Your task to perform on an android device: When is my next appointment? Image 0: 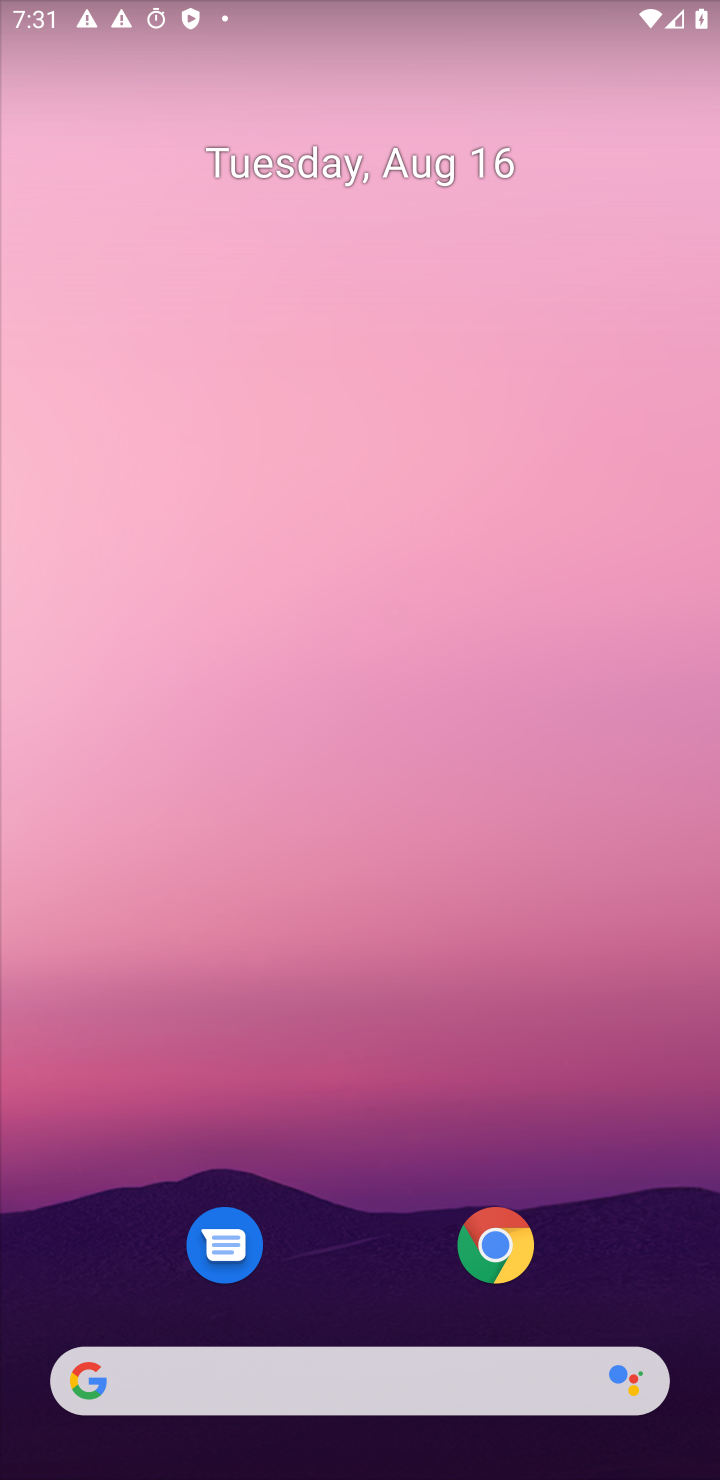
Step 0: press home button
Your task to perform on an android device: When is my next appointment? Image 1: 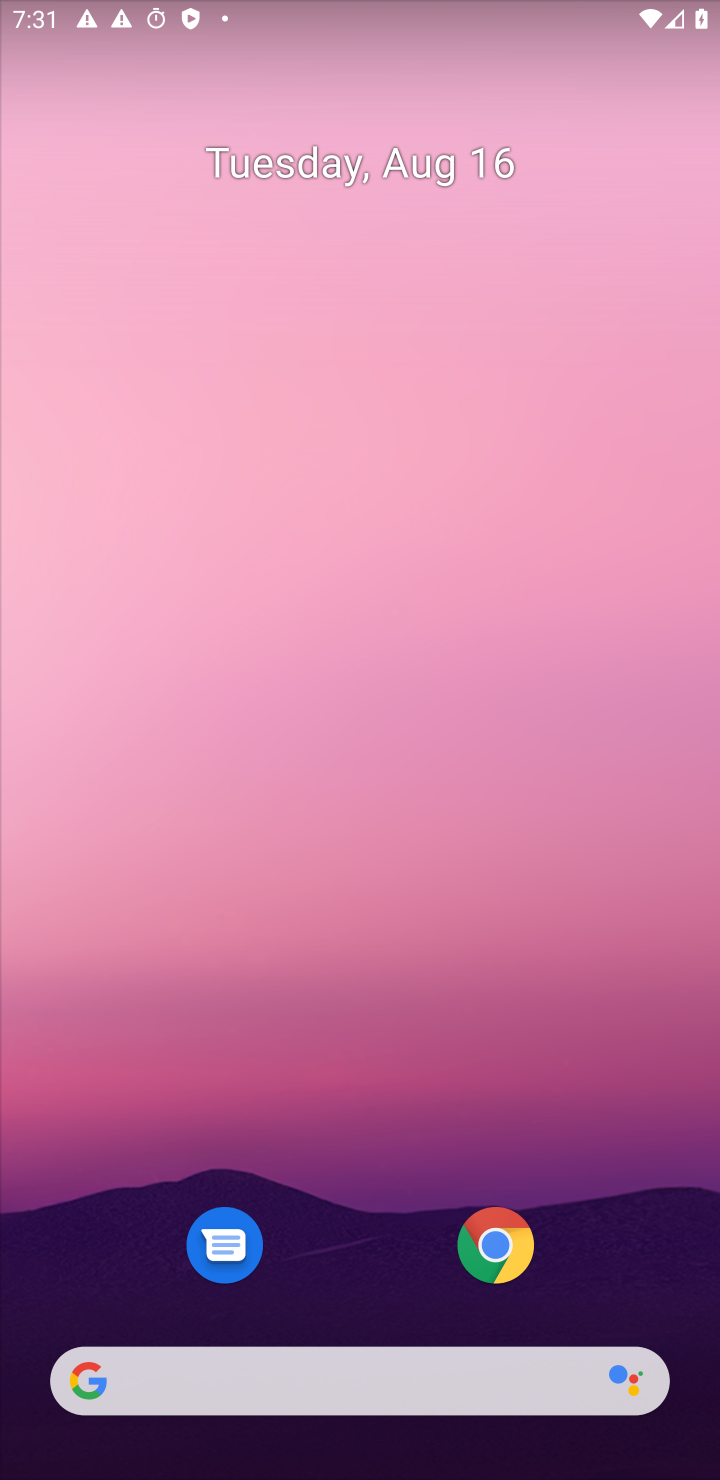
Step 1: drag from (345, 823) to (309, 198)
Your task to perform on an android device: When is my next appointment? Image 2: 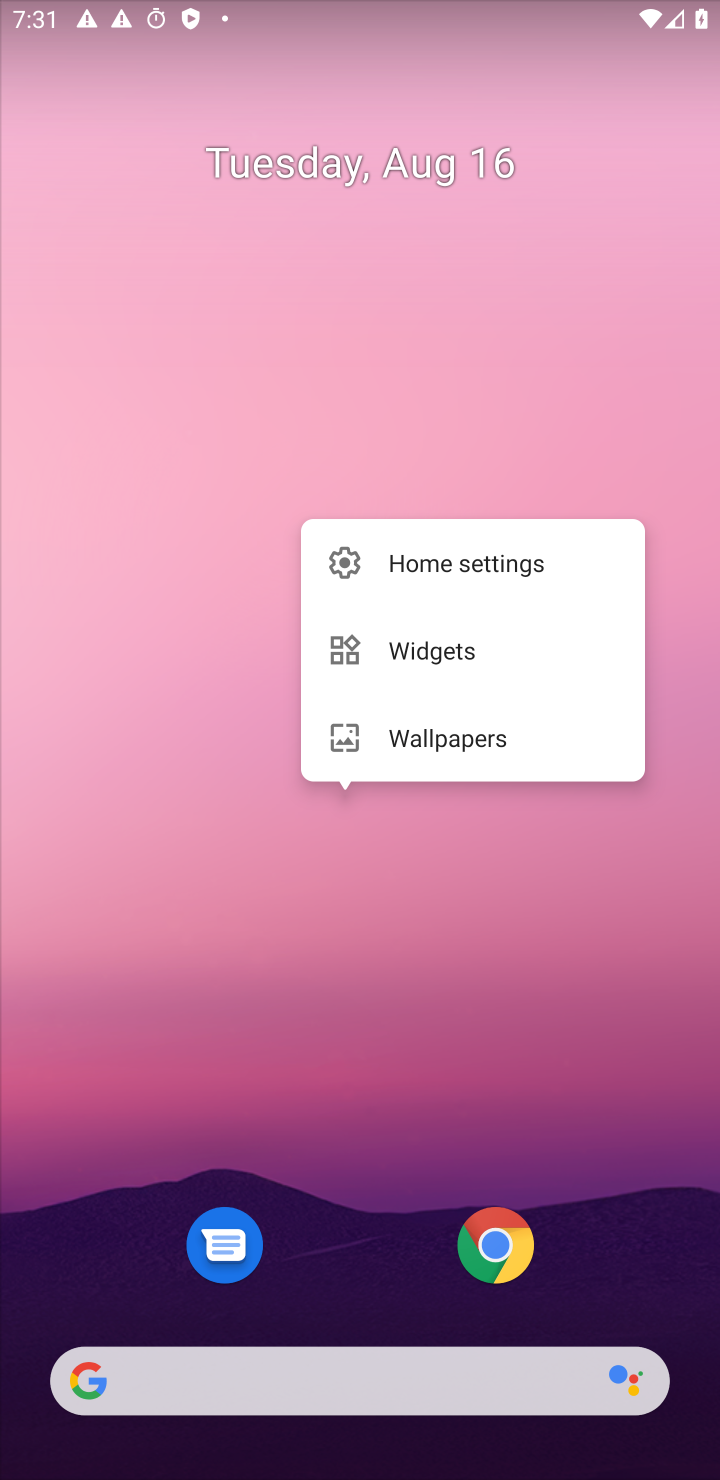
Step 2: drag from (368, 1248) to (241, 244)
Your task to perform on an android device: When is my next appointment? Image 3: 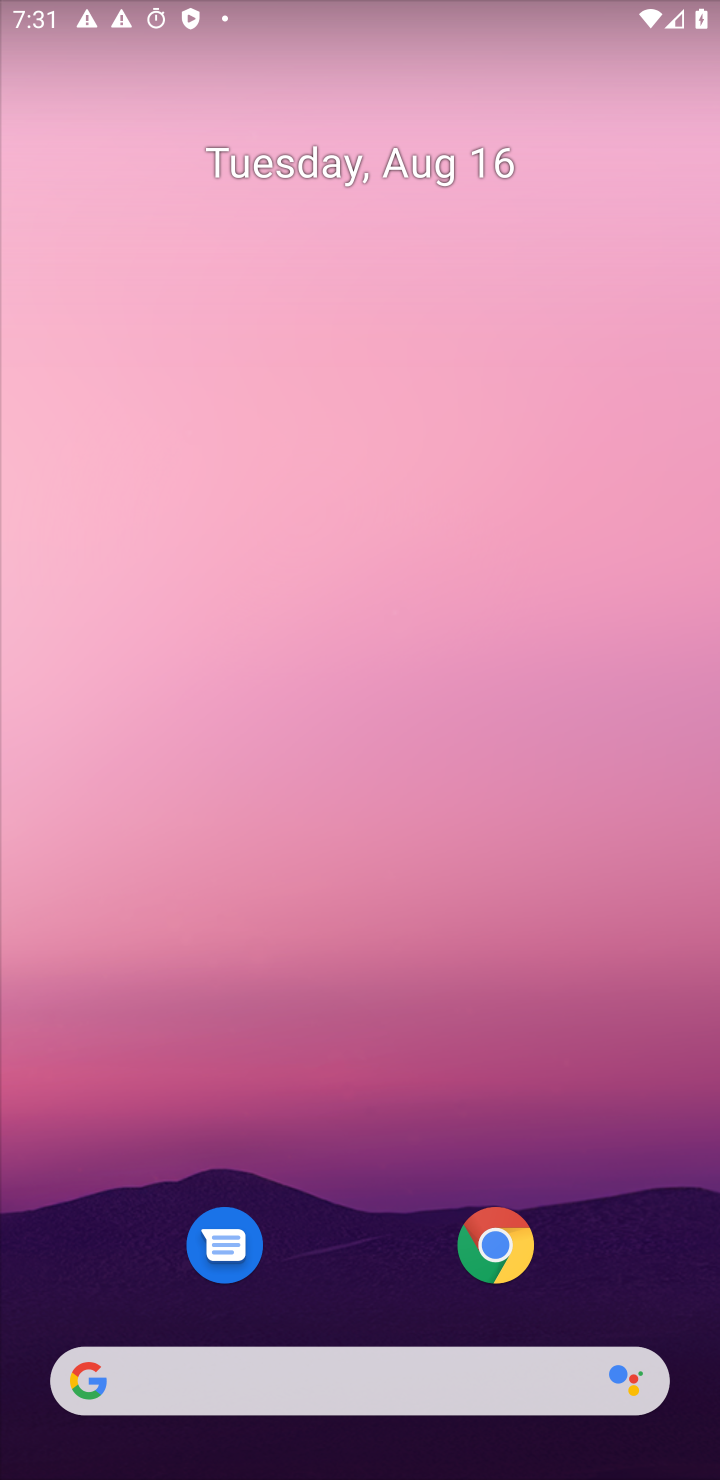
Step 3: drag from (363, 1165) to (348, 379)
Your task to perform on an android device: When is my next appointment? Image 4: 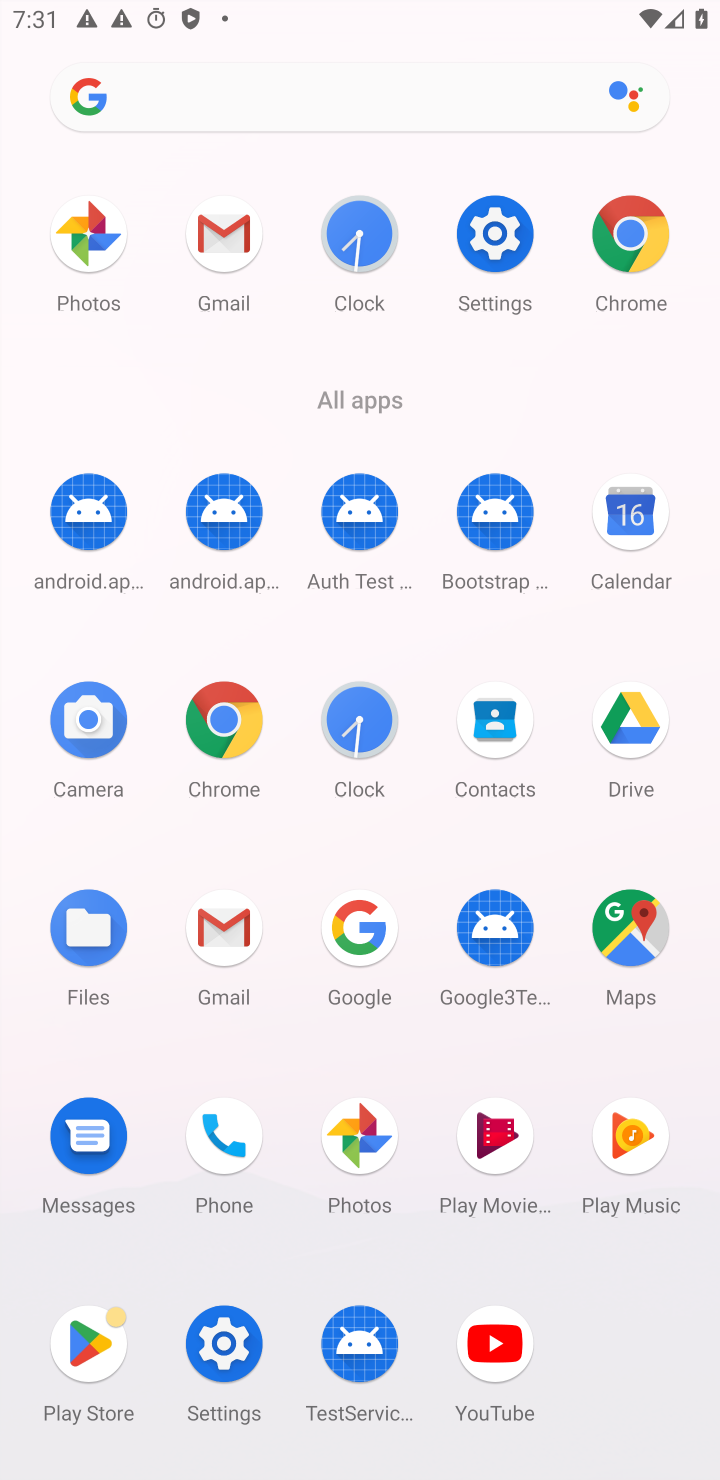
Step 4: click (634, 509)
Your task to perform on an android device: When is my next appointment? Image 5: 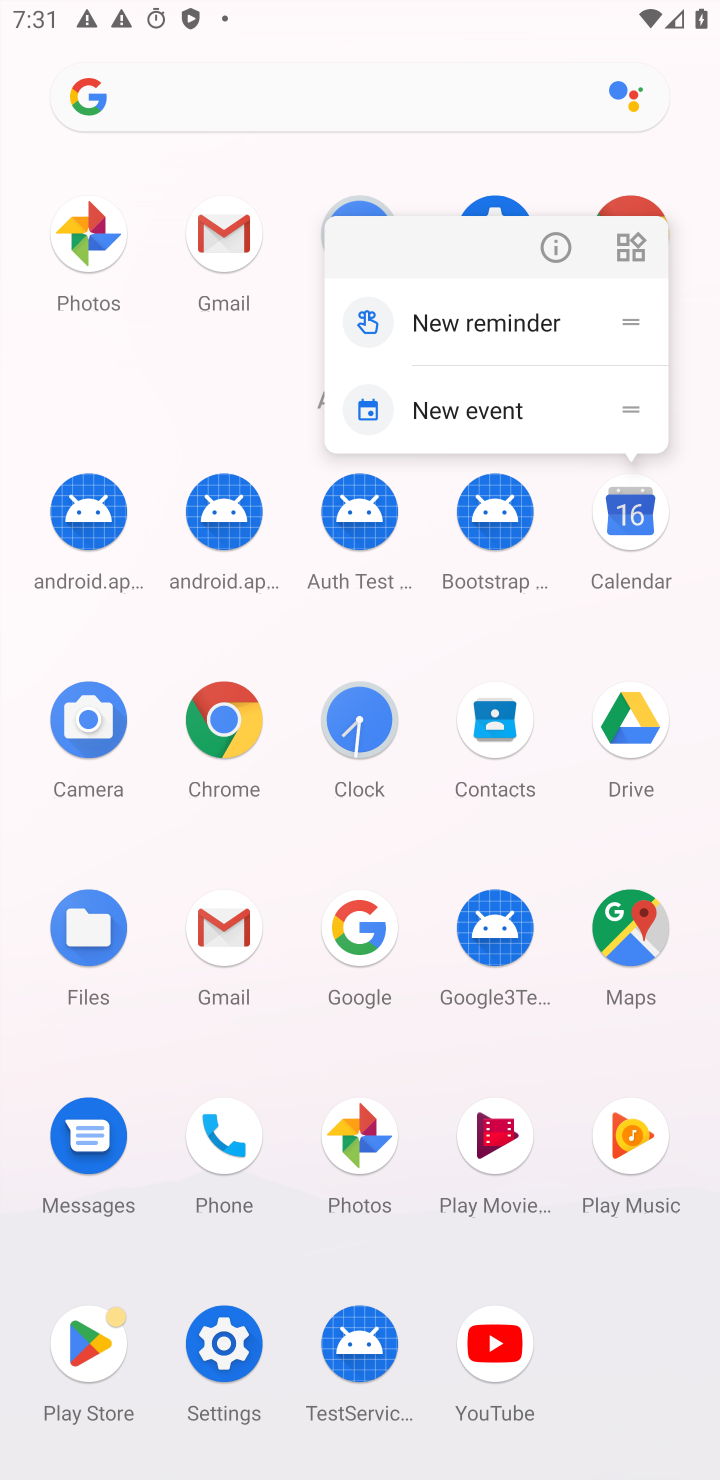
Step 5: click (634, 509)
Your task to perform on an android device: When is my next appointment? Image 6: 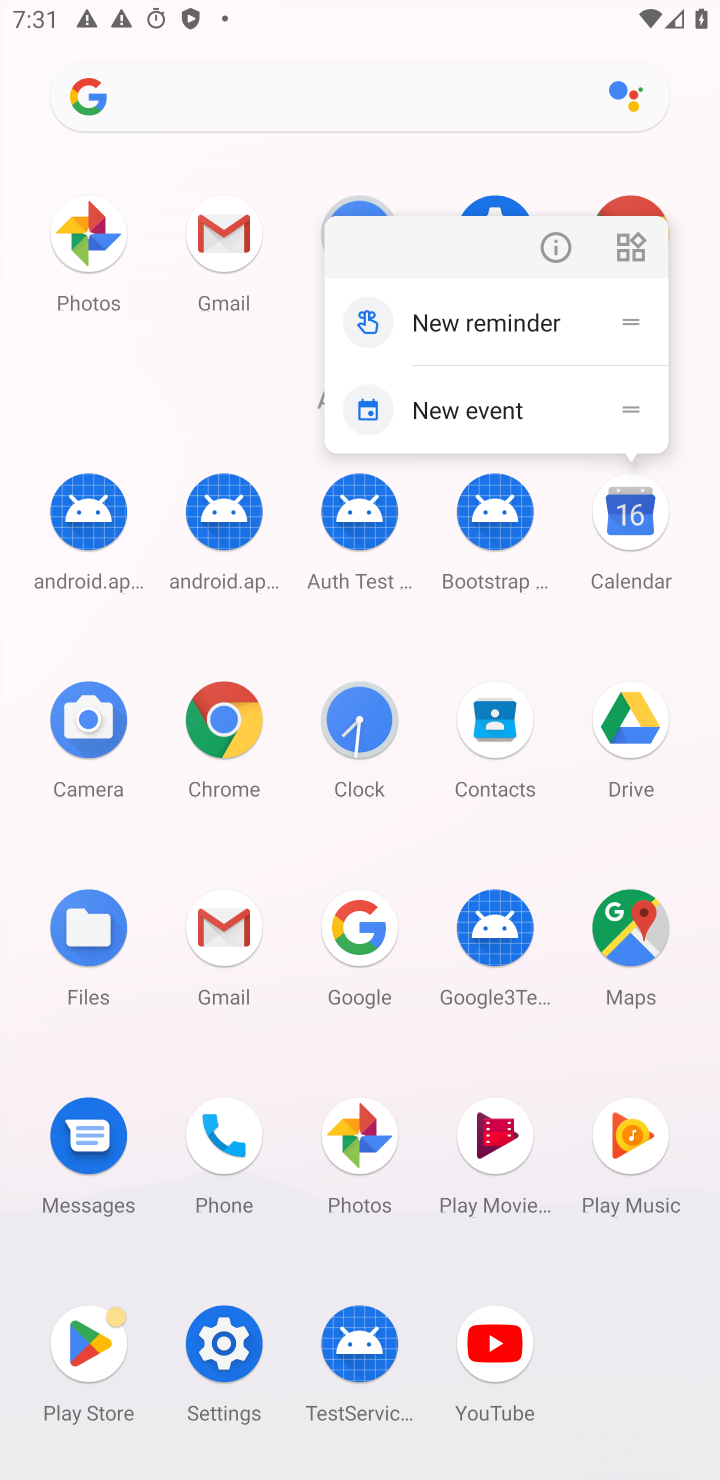
Step 6: click (615, 517)
Your task to perform on an android device: When is my next appointment? Image 7: 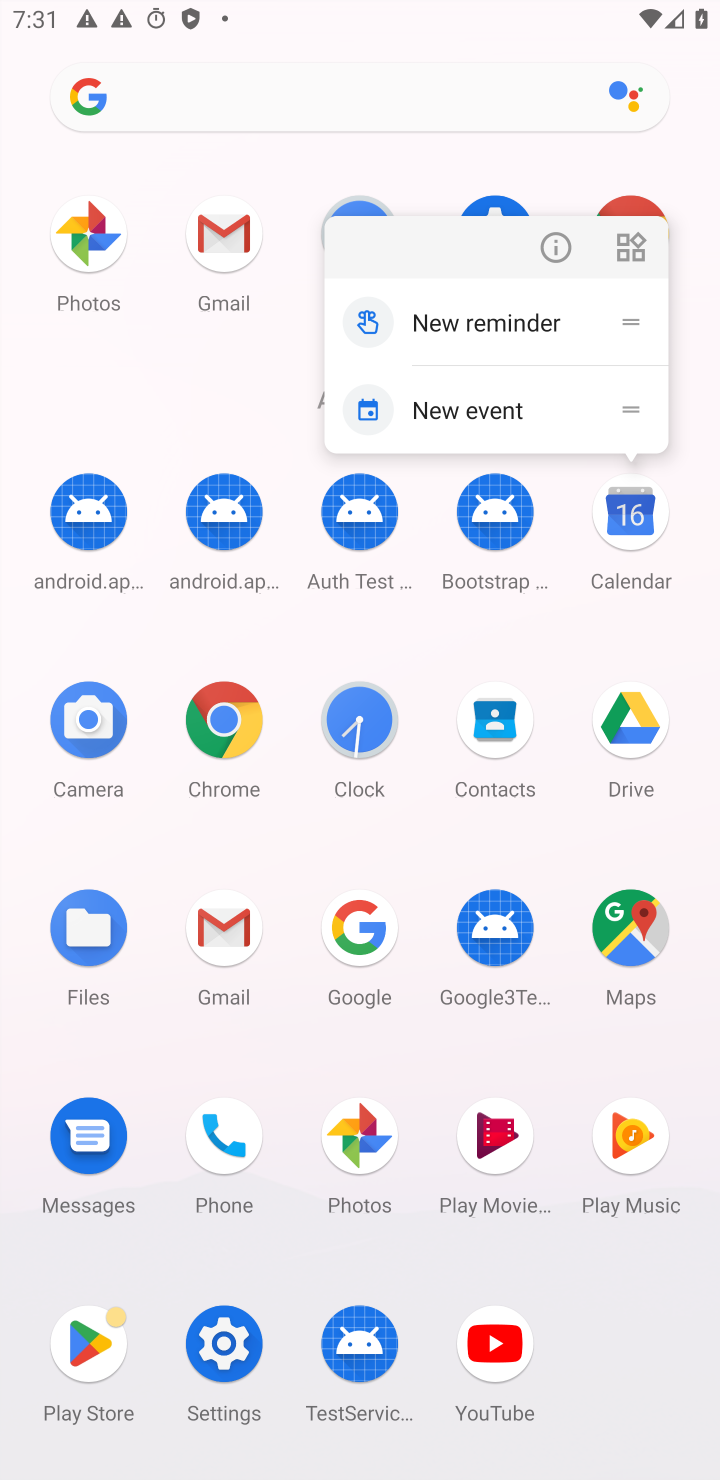
Step 7: click (629, 518)
Your task to perform on an android device: When is my next appointment? Image 8: 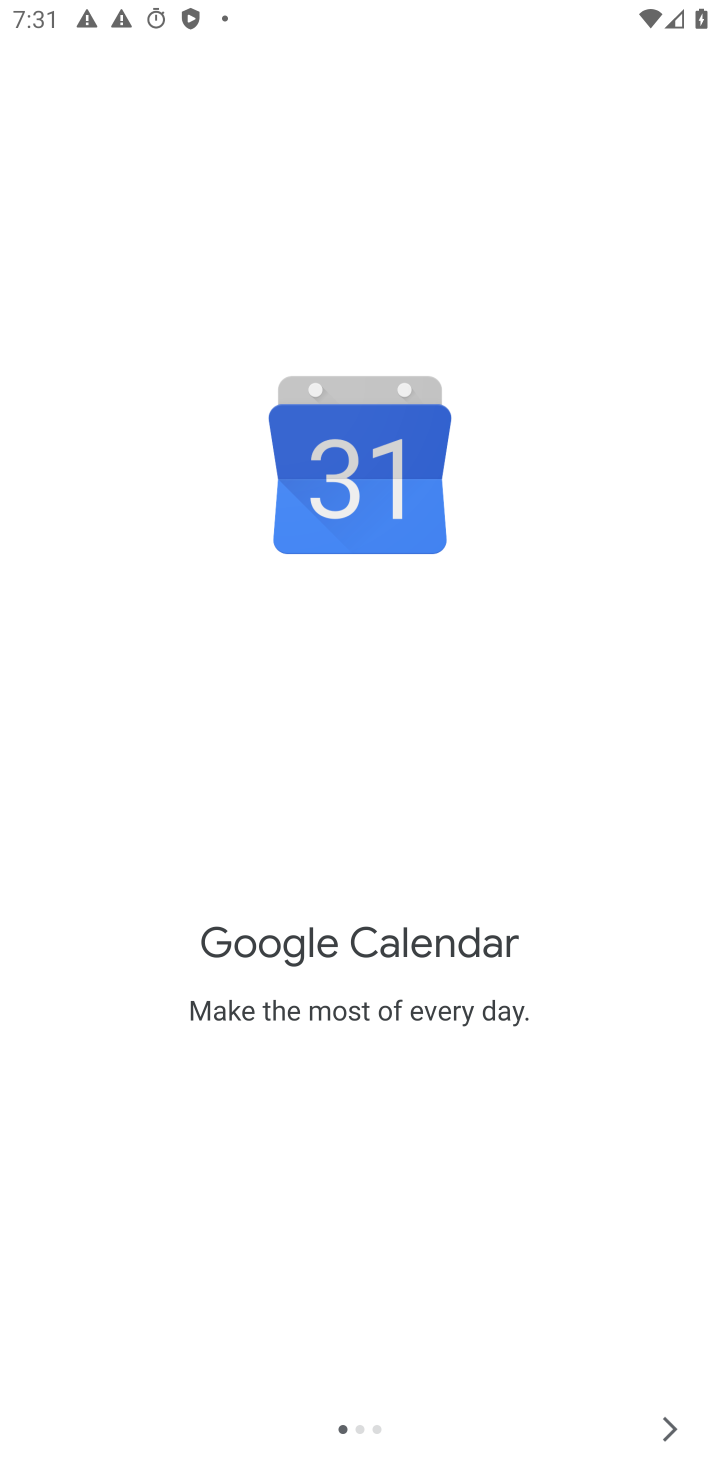
Step 8: click (669, 1426)
Your task to perform on an android device: When is my next appointment? Image 9: 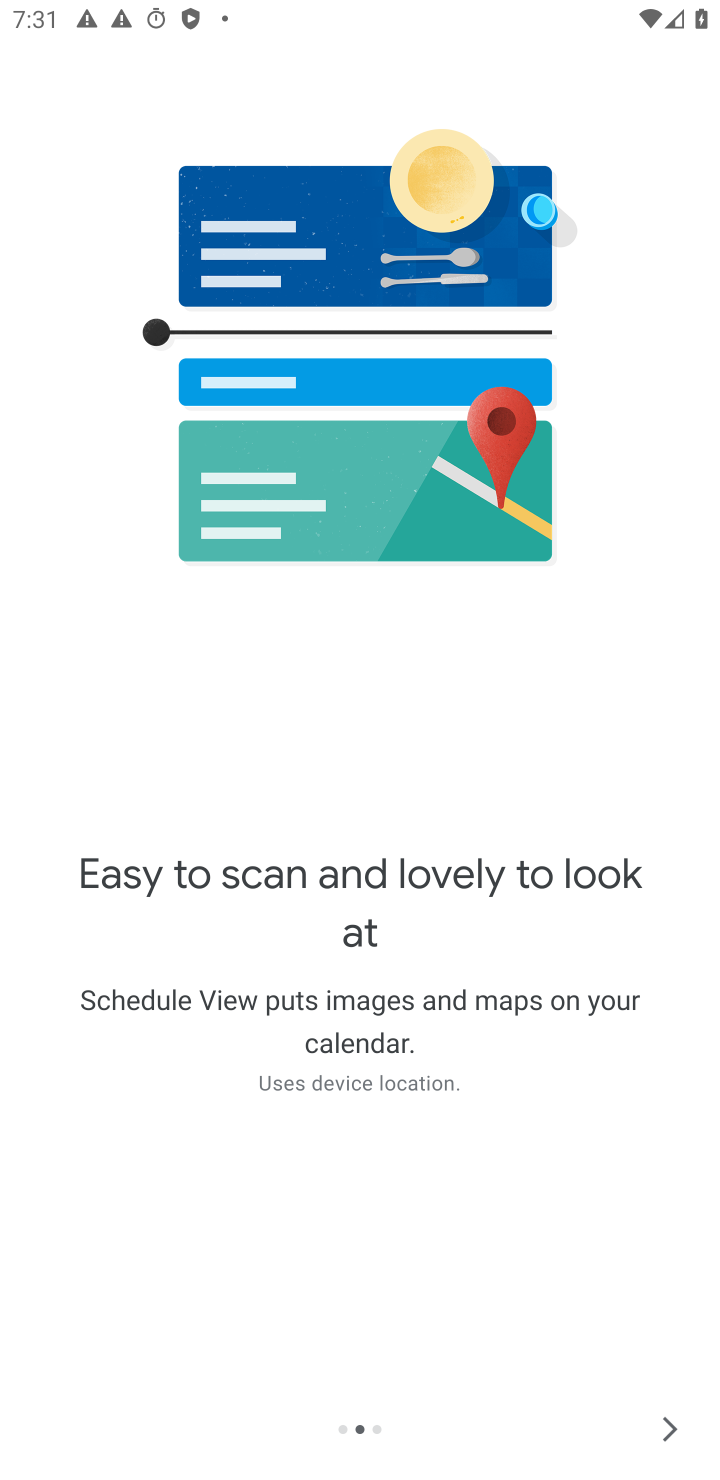
Step 9: click (669, 1426)
Your task to perform on an android device: When is my next appointment? Image 10: 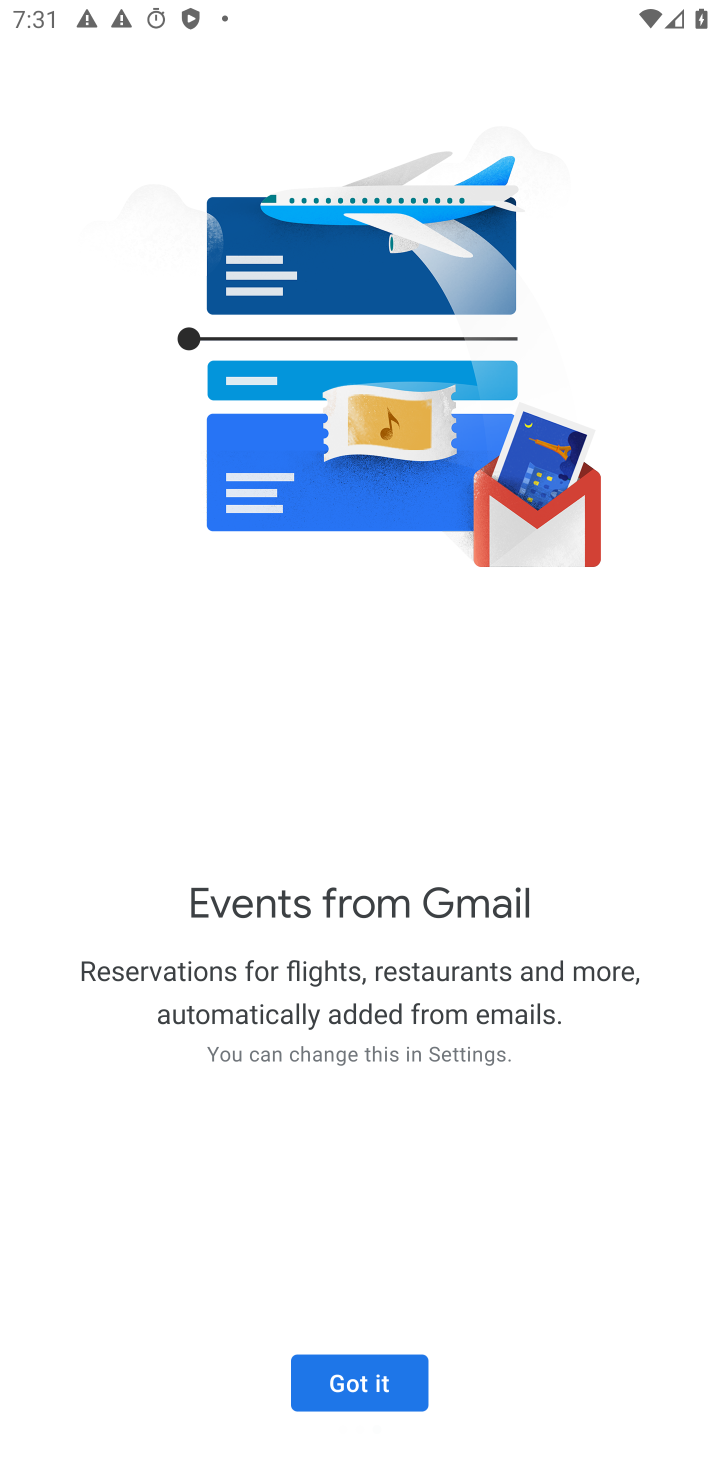
Step 10: click (669, 1426)
Your task to perform on an android device: When is my next appointment? Image 11: 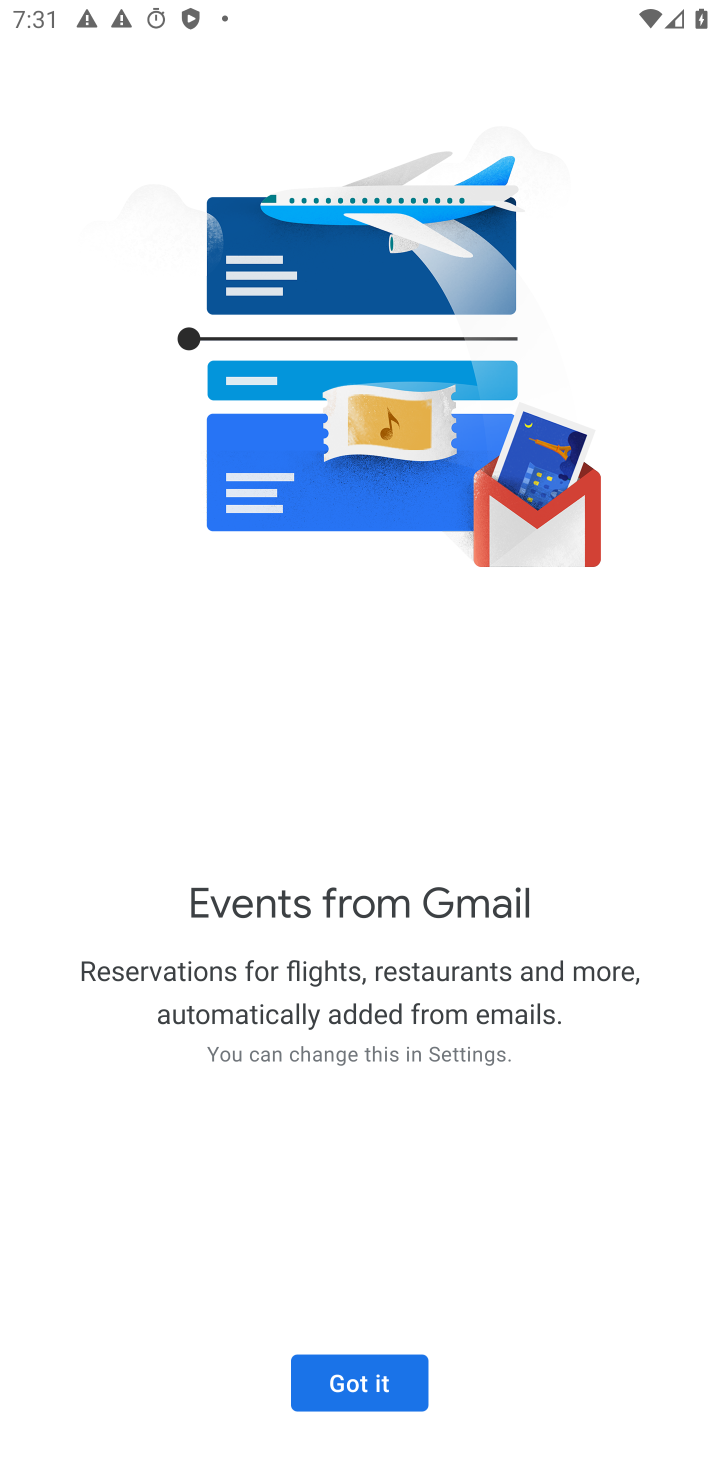
Step 11: click (367, 1385)
Your task to perform on an android device: When is my next appointment? Image 12: 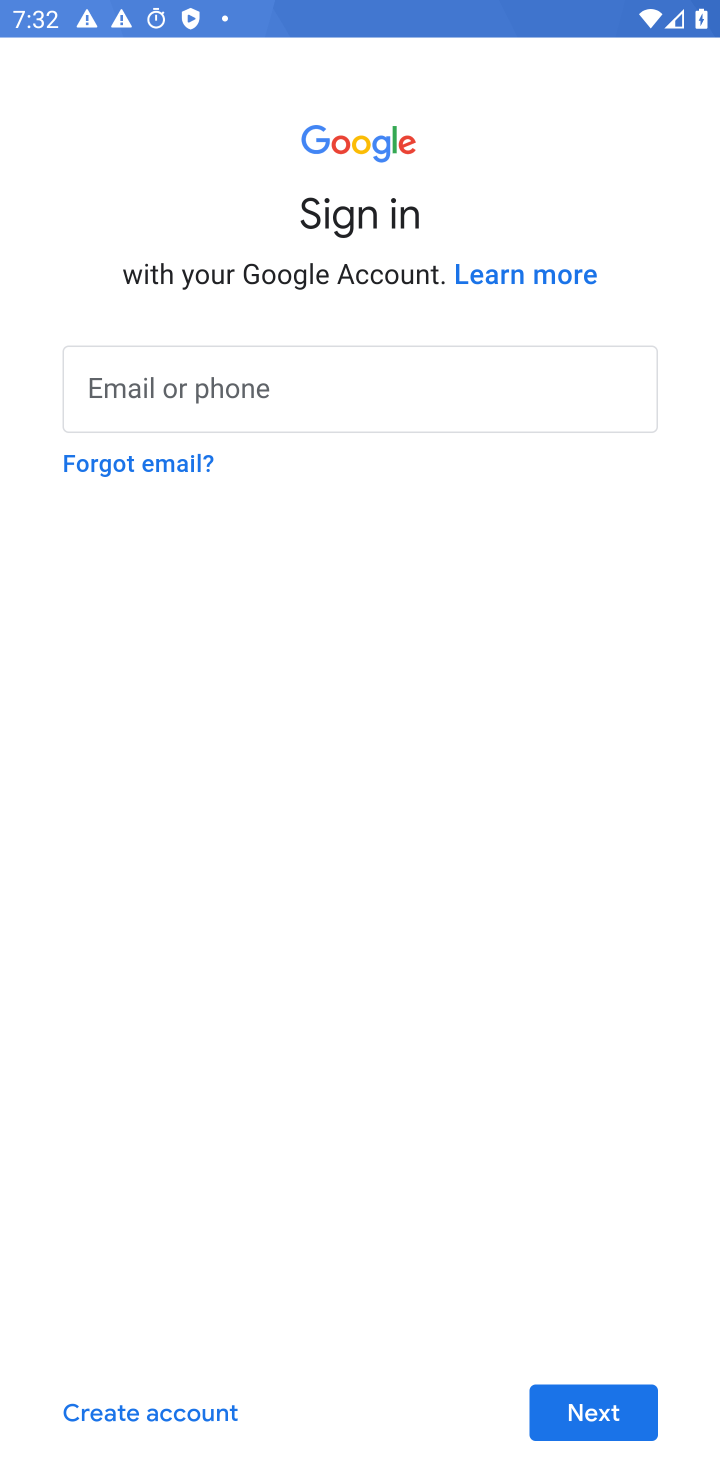
Step 12: task complete